Your task to perform on an android device: delete the emails in spam in the gmail app Image 0: 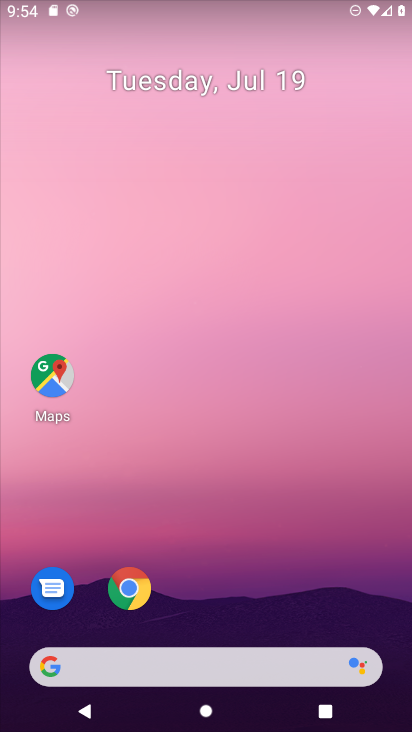
Step 0: drag from (278, 649) to (194, 126)
Your task to perform on an android device: delete the emails in spam in the gmail app Image 1: 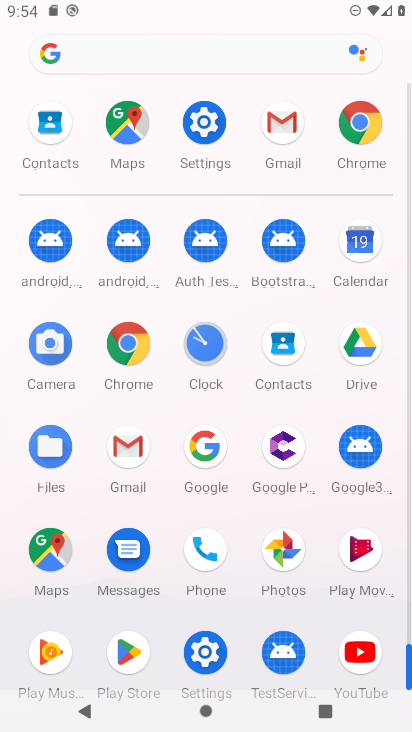
Step 1: click (127, 453)
Your task to perform on an android device: delete the emails in spam in the gmail app Image 2: 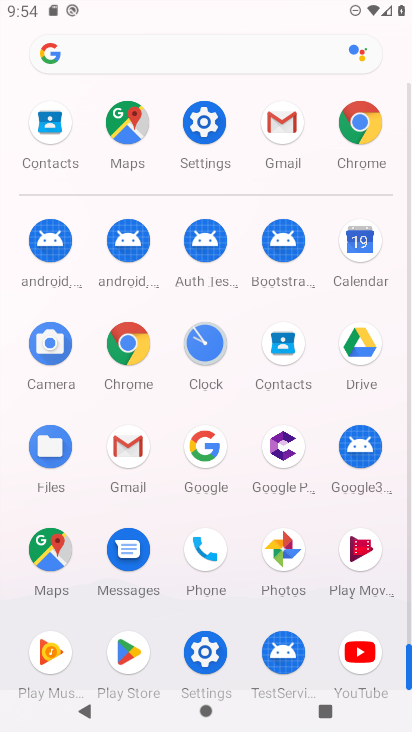
Step 2: click (126, 452)
Your task to perform on an android device: delete the emails in spam in the gmail app Image 3: 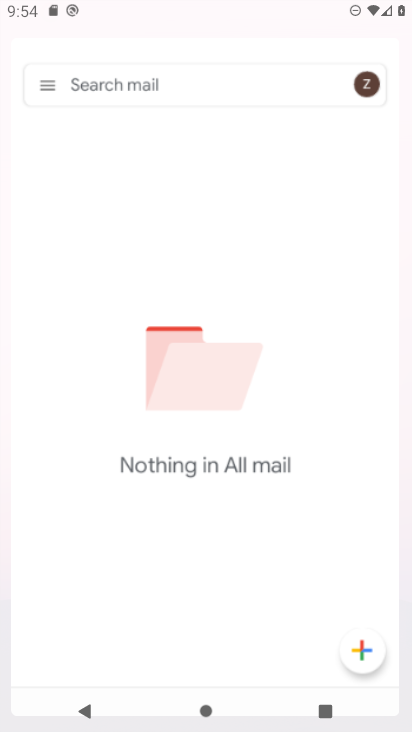
Step 3: click (125, 451)
Your task to perform on an android device: delete the emails in spam in the gmail app Image 4: 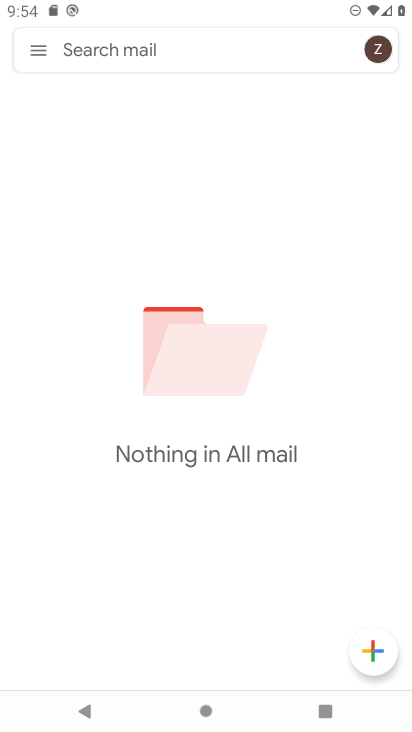
Step 4: click (39, 58)
Your task to perform on an android device: delete the emails in spam in the gmail app Image 5: 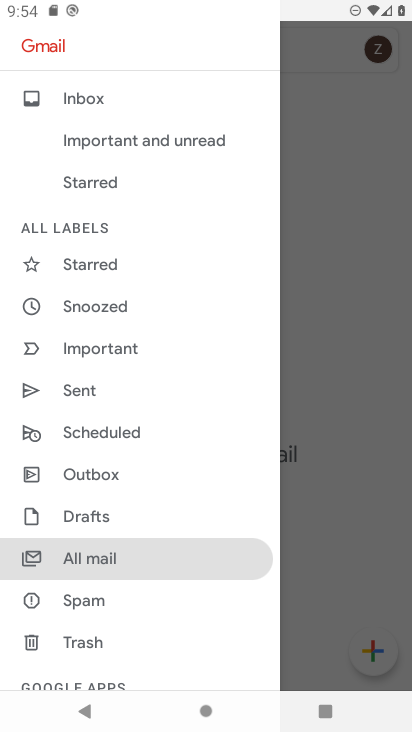
Step 5: click (88, 602)
Your task to perform on an android device: delete the emails in spam in the gmail app Image 6: 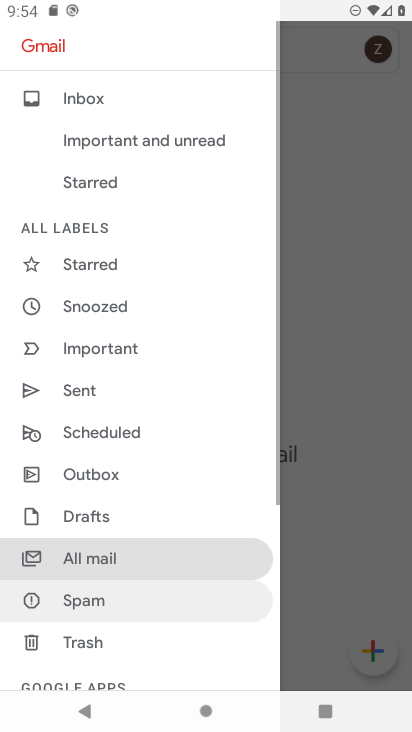
Step 6: click (96, 598)
Your task to perform on an android device: delete the emails in spam in the gmail app Image 7: 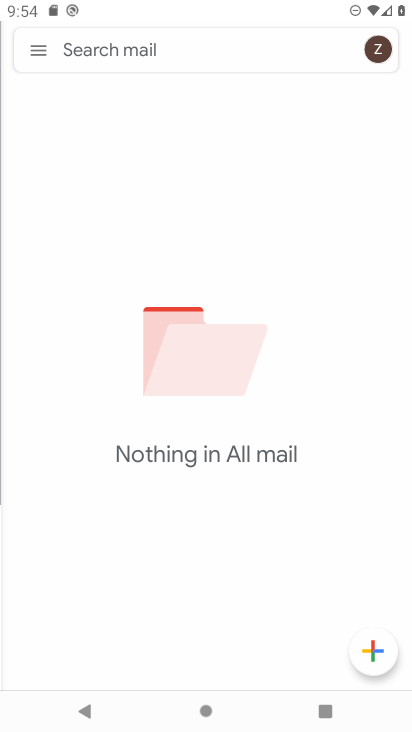
Step 7: click (101, 592)
Your task to perform on an android device: delete the emails in spam in the gmail app Image 8: 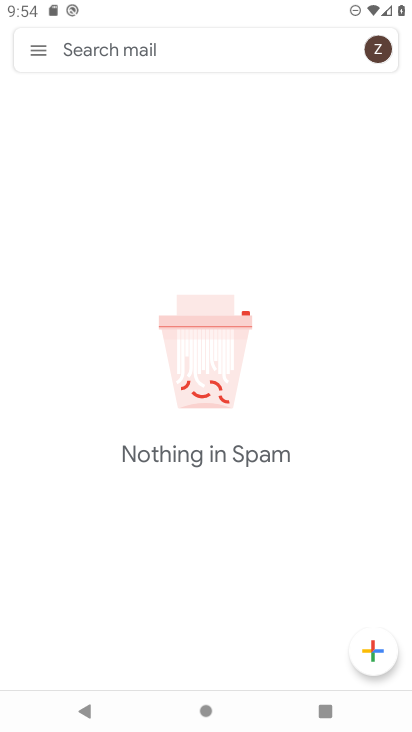
Step 8: task complete